Your task to perform on an android device: visit the assistant section in the google photos Image 0: 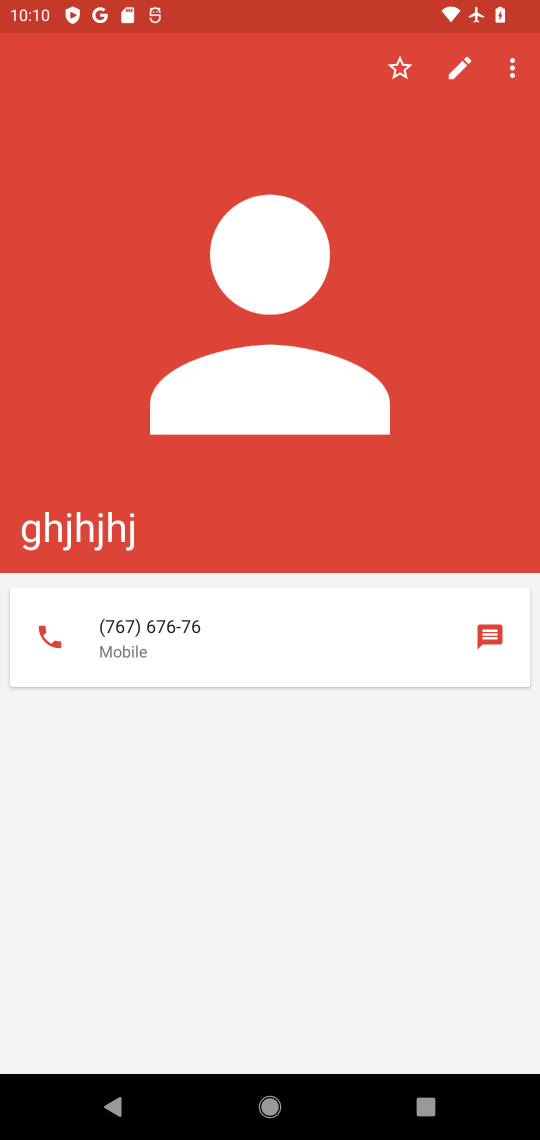
Step 0: press home button
Your task to perform on an android device: visit the assistant section in the google photos Image 1: 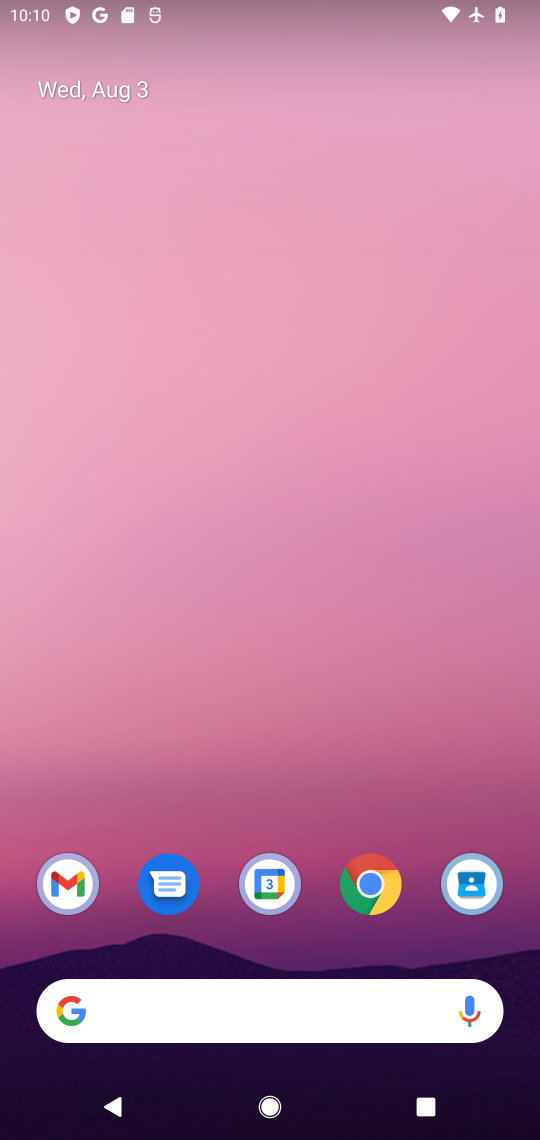
Step 1: drag from (324, 958) to (138, 138)
Your task to perform on an android device: visit the assistant section in the google photos Image 2: 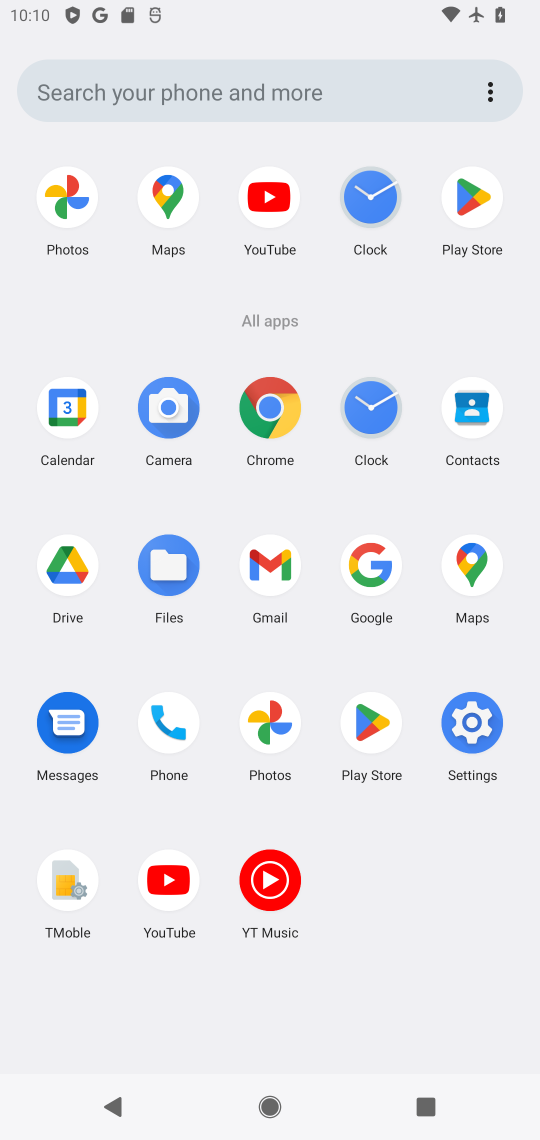
Step 2: click (259, 731)
Your task to perform on an android device: visit the assistant section in the google photos Image 3: 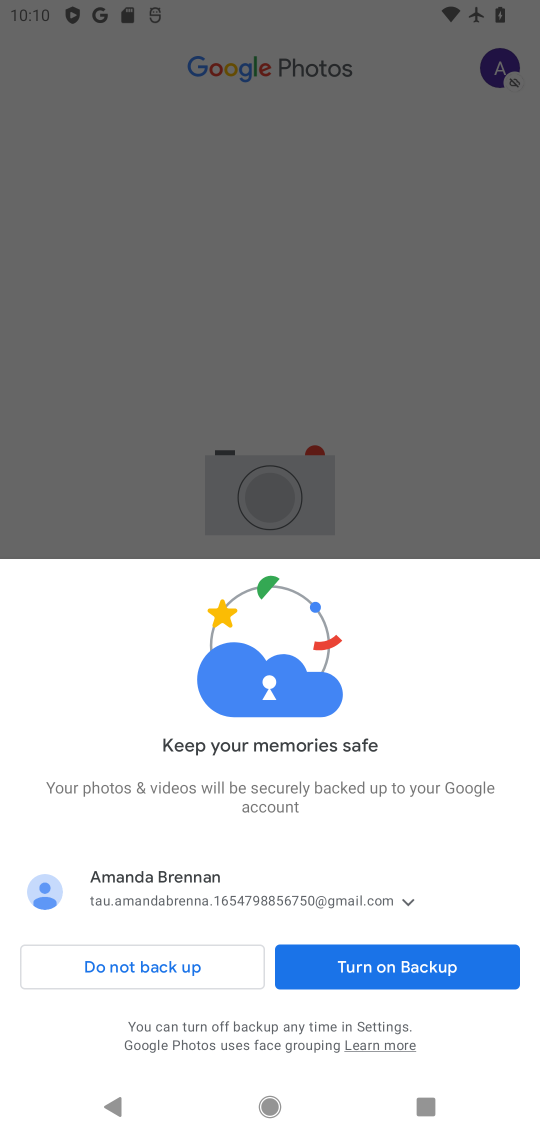
Step 3: click (331, 965)
Your task to perform on an android device: visit the assistant section in the google photos Image 4: 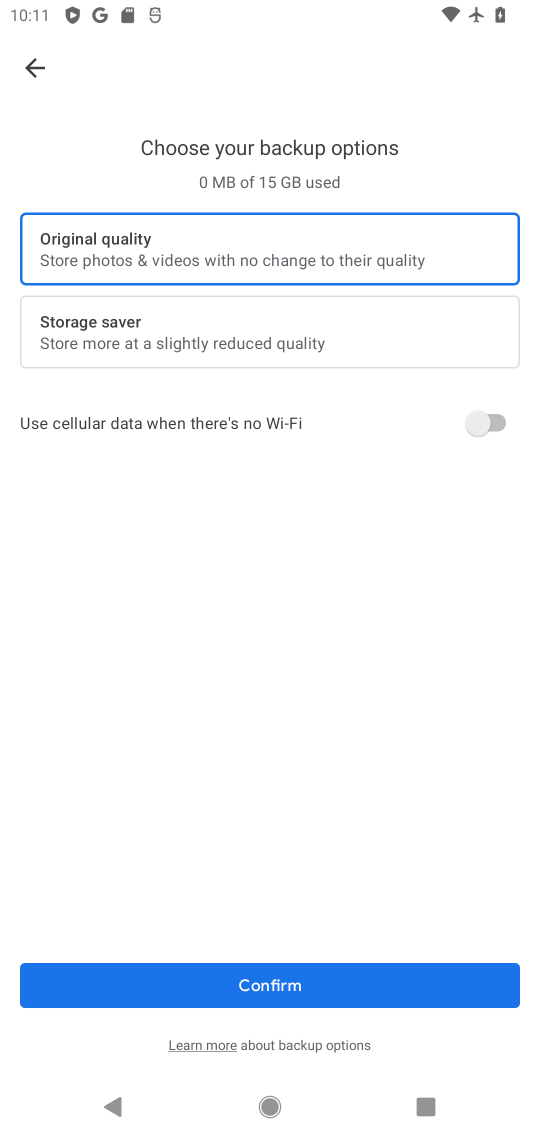
Step 4: click (23, 65)
Your task to perform on an android device: visit the assistant section in the google photos Image 5: 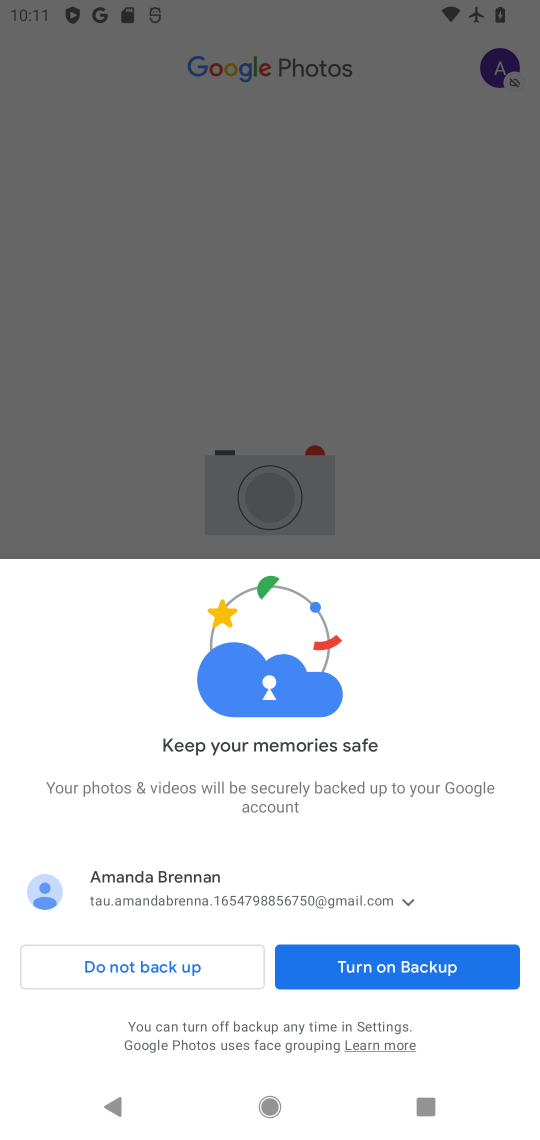
Step 5: click (152, 969)
Your task to perform on an android device: visit the assistant section in the google photos Image 6: 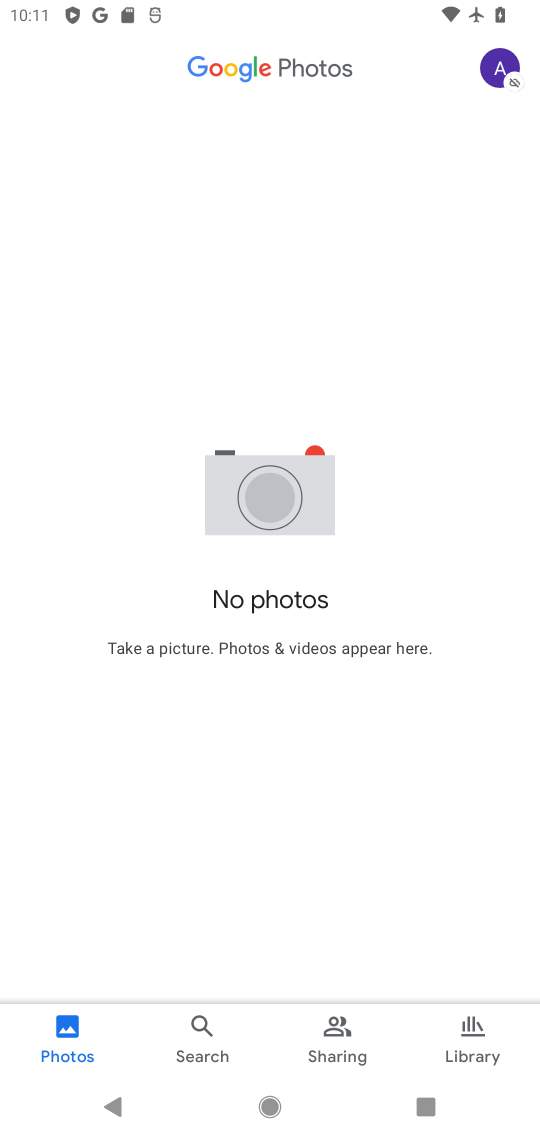
Step 6: task complete